Your task to perform on an android device: open a new tab in the chrome app Image 0: 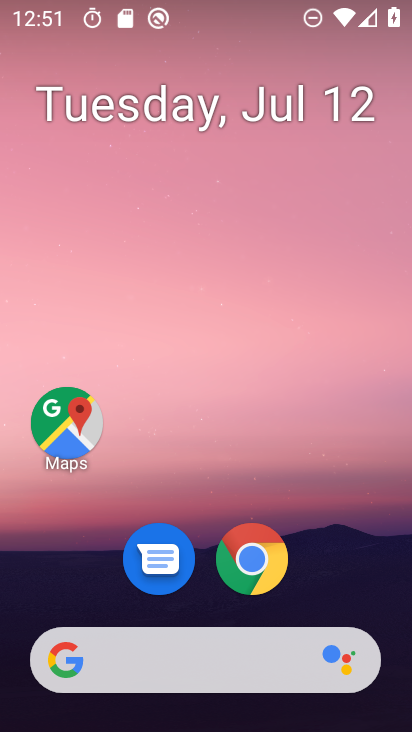
Step 0: click (253, 562)
Your task to perform on an android device: open a new tab in the chrome app Image 1: 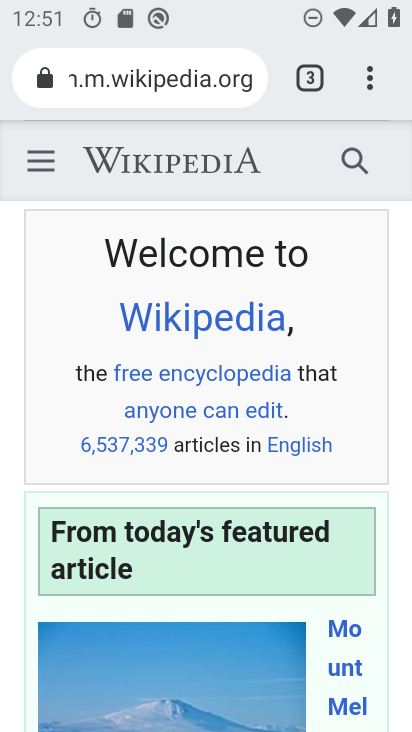
Step 1: click (314, 81)
Your task to perform on an android device: open a new tab in the chrome app Image 2: 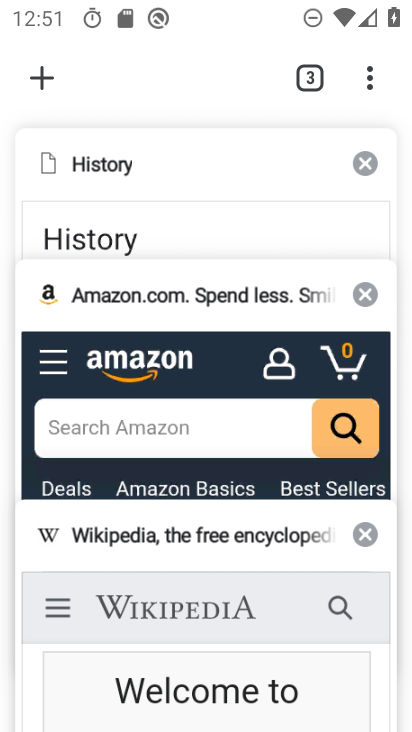
Step 2: click (47, 72)
Your task to perform on an android device: open a new tab in the chrome app Image 3: 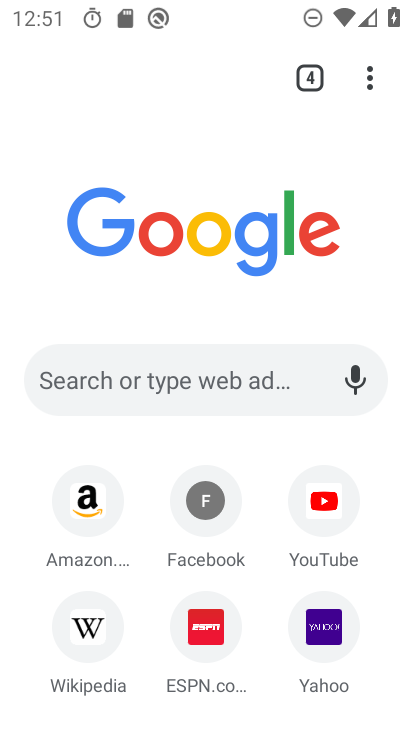
Step 3: task complete